Your task to perform on an android device: Open internet settings Image 0: 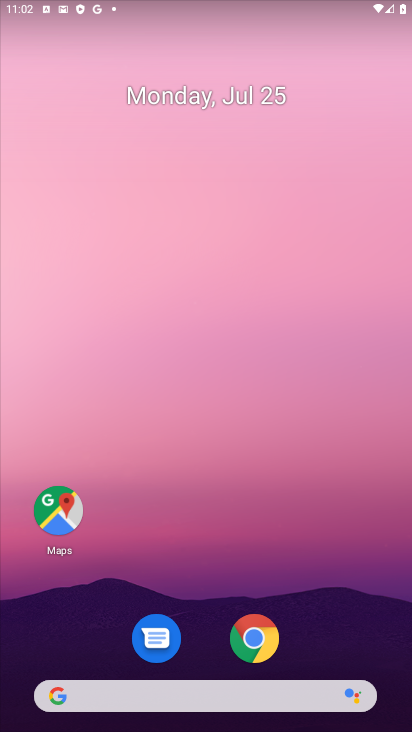
Step 0: drag from (345, 424) to (331, 133)
Your task to perform on an android device: Open internet settings Image 1: 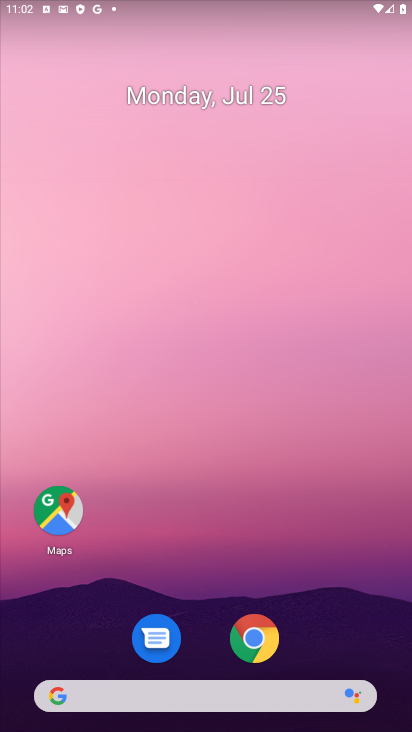
Step 1: drag from (245, 579) to (281, 148)
Your task to perform on an android device: Open internet settings Image 2: 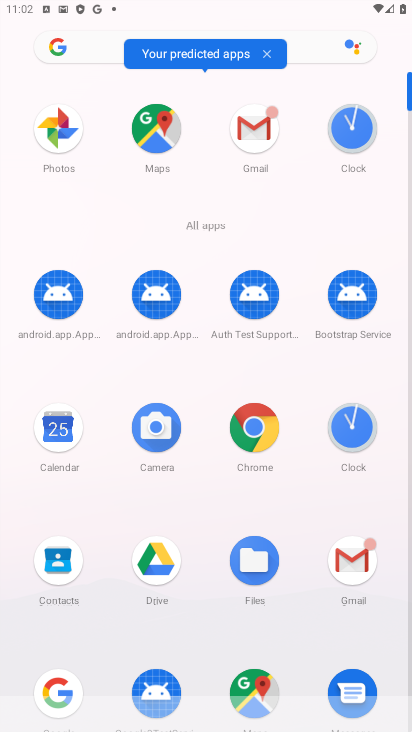
Step 2: drag from (259, 481) to (306, 136)
Your task to perform on an android device: Open internet settings Image 3: 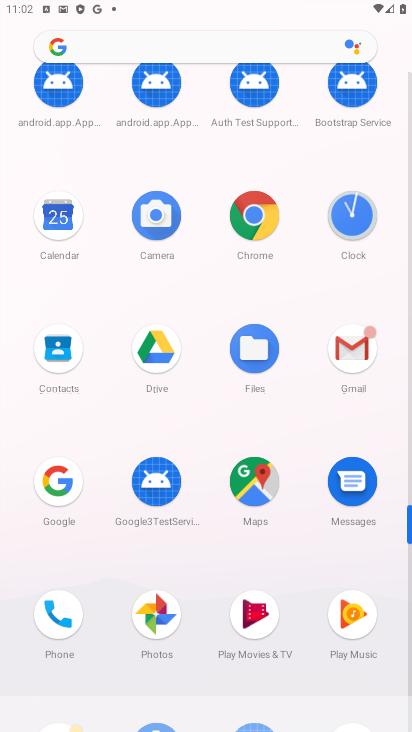
Step 3: drag from (281, 564) to (330, 266)
Your task to perform on an android device: Open internet settings Image 4: 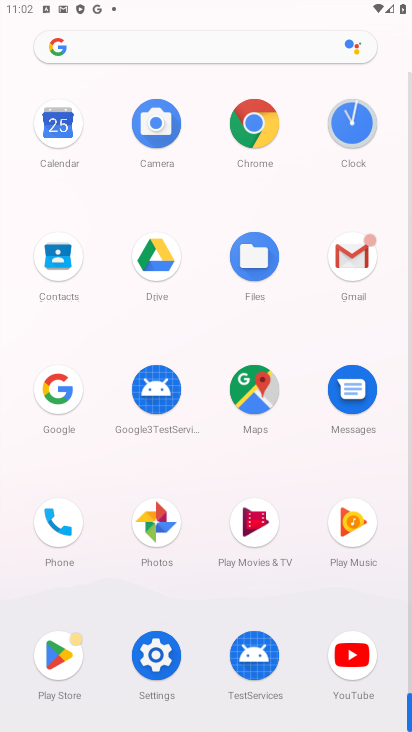
Step 4: drag from (161, 647) to (70, 165)
Your task to perform on an android device: Open internet settings Image 5: 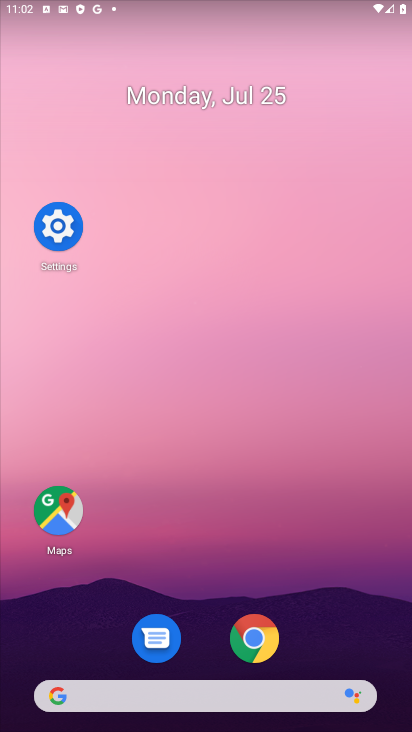
Step 5: click (66, 214)
Your task to perform on an android device: Open internet settings Image 6: 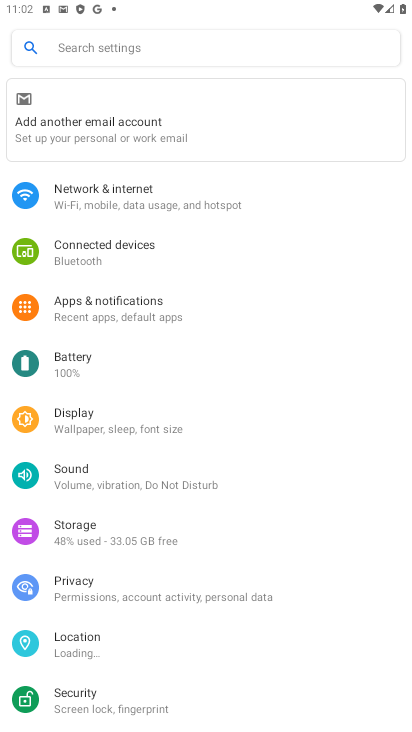
Step 6: click (185, 198)
Your task to perform on an android device: Open internet settings Image 7: 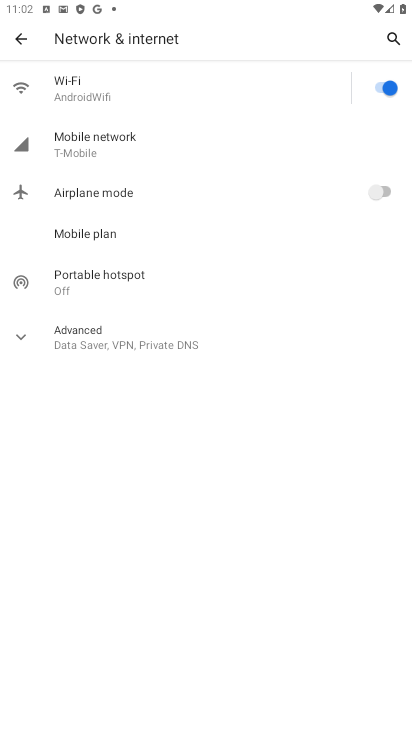
Step 7: click (187, 153)
Your task to perform on an android device: Open internet settings Image 8: 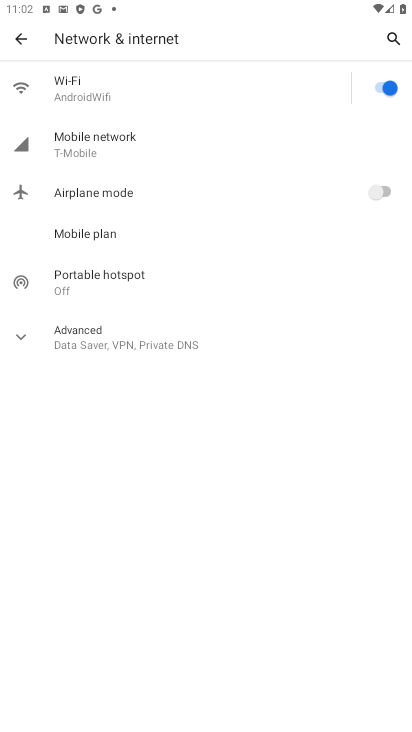
Step 8: task complete